Your task to perform on an android device: check the backup settings in the google photos Image 0: 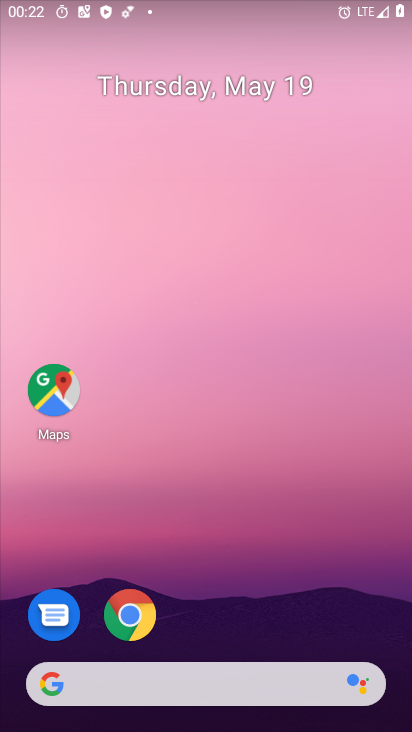
Step 0: press home button
Your task to perform on an android device: check the backup settings in the google photos Image 1: 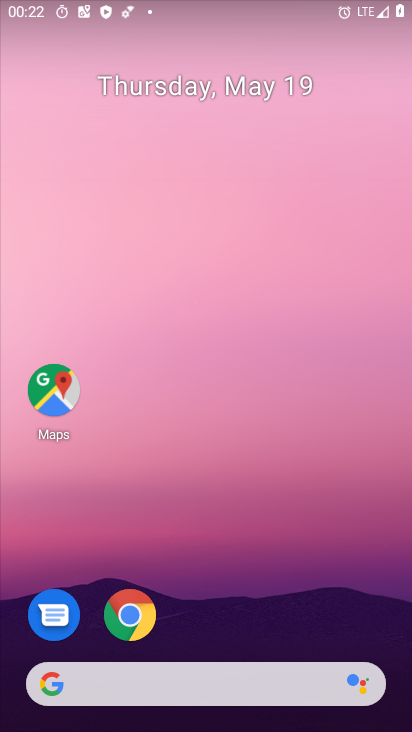
Step 1: drag from (44, 518) to (243, 133)
Your task to perform on an android device: check the backup settings in the google photos Image 2: 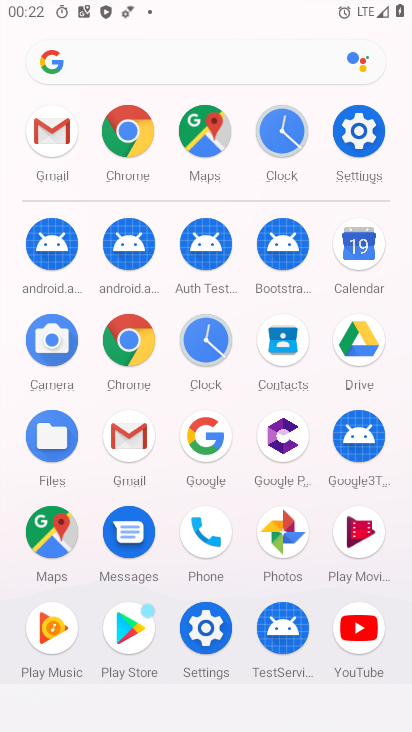
Step 2: click (291, 535)
Your task to perform on an android device: check the backup settings in the google photos Image 3: 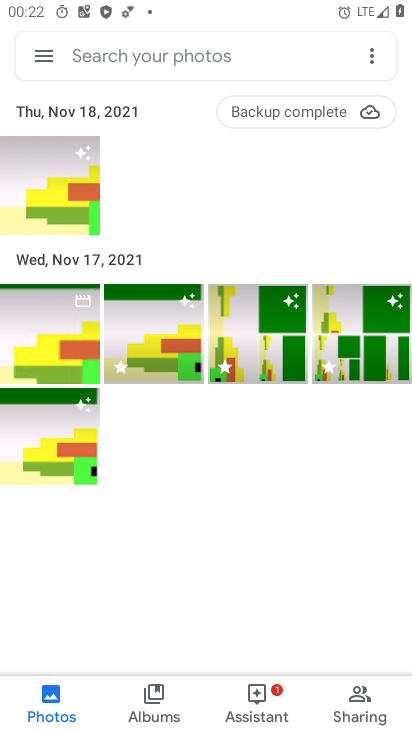
Step 3: click (40, 52)
Your task to perform on an android device: check the backup settings in the google photos Image 4: 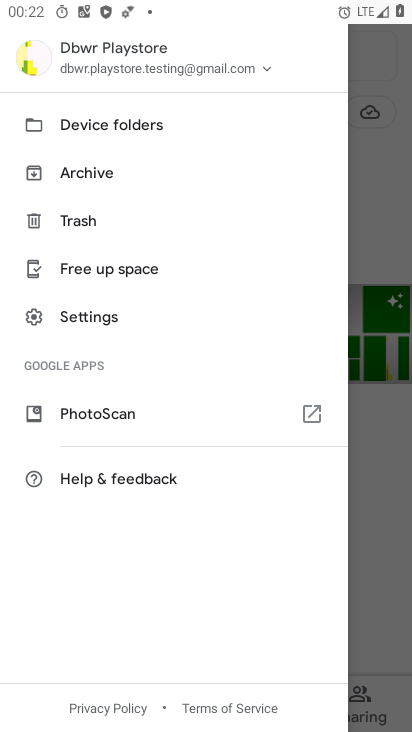
Step 4: click (125, 318)
Your task to perform on an android device: check the backup settings in the google photos Image 5: 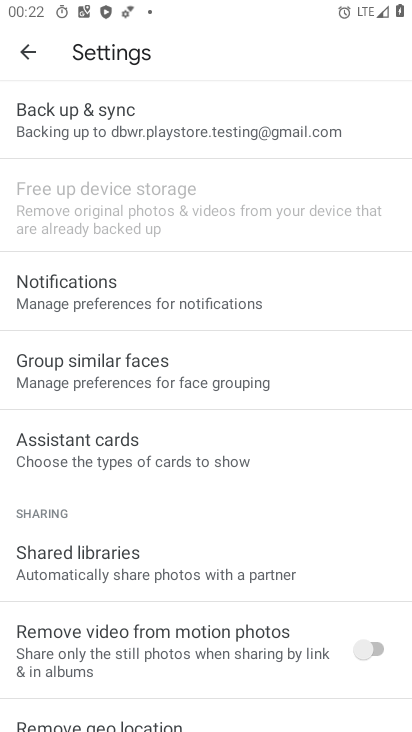
Step 5: click (148, 122)
Your task to perform on an android device: check the backup settings in the google photos Image 6: 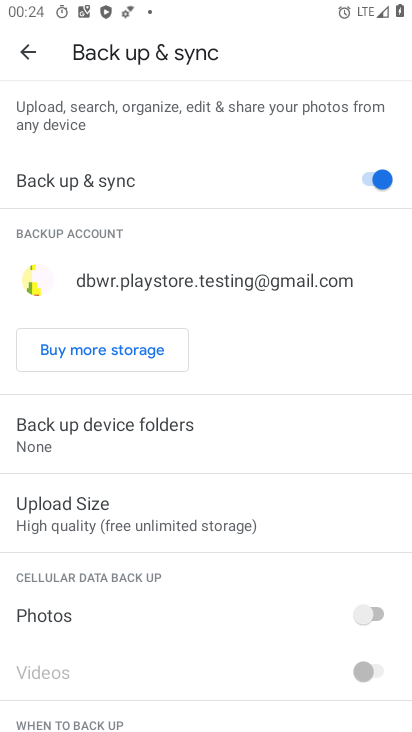
Step 6: task complete